Your task to perform on an android device: Open eBay Image 0: 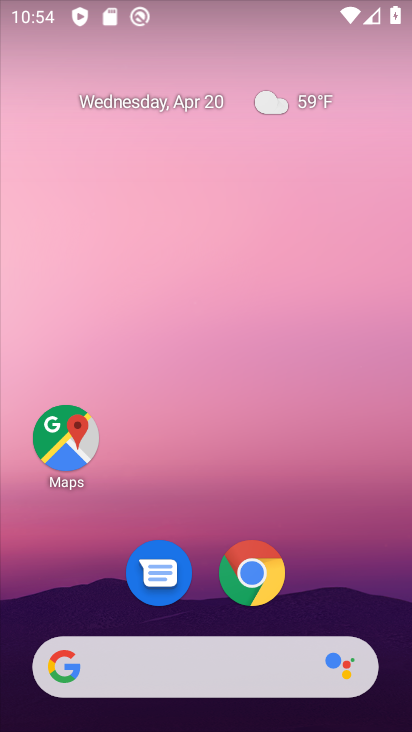
Step 0: click (250, 574)
Your task to perform on an android device: Open eBay Image 1: 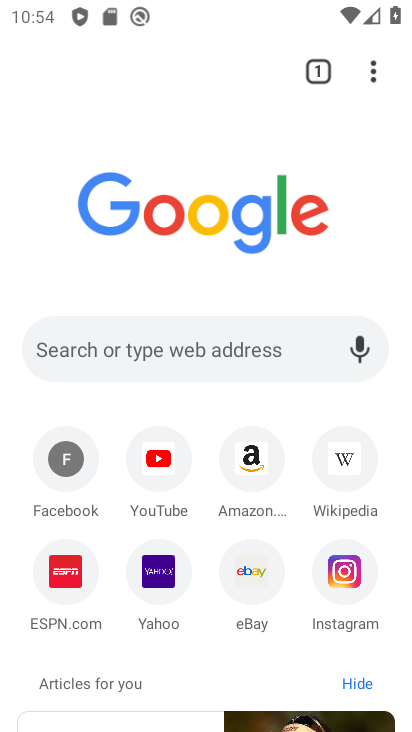
Step 1: click (250, 574)
Your task to perform on an android device: Open eBay Image 2: 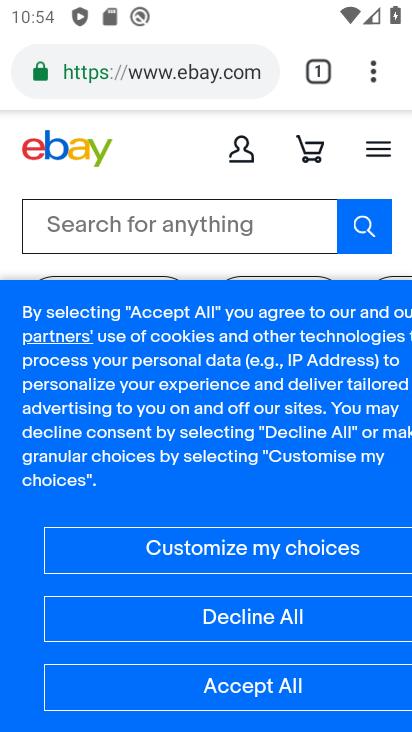
Step 2: task complete